Your task to perform on an android device: empty trash in the gmail app Image 0: 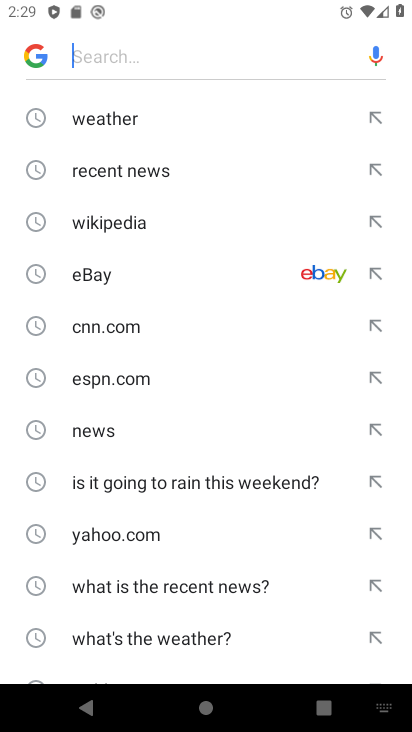
Step 0: press home button
Your task to perform on an android device: empty trash in the gmail app Image 1: 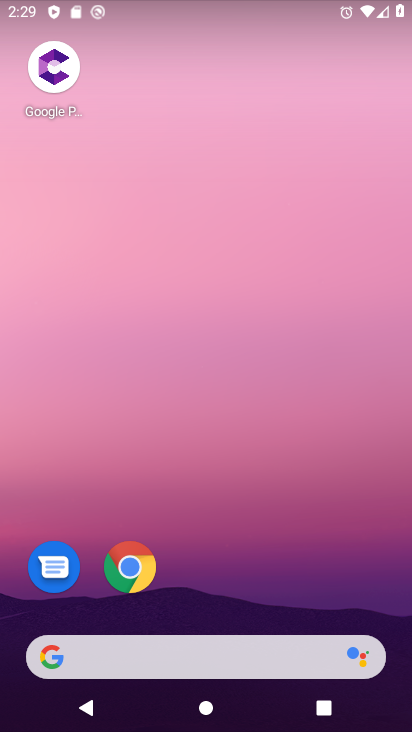
Step 1: drag from (220, 598) to (258, 66)
Your task to perform on an android device: empty trash in the gmail app Image 2: 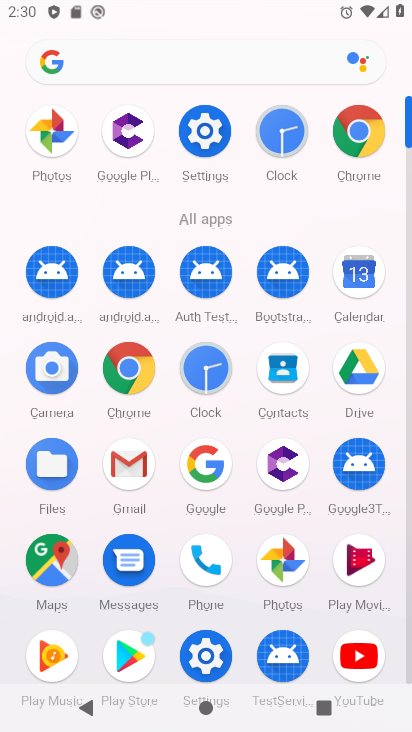
Step 2: click (139, 469)
Your task to perform on an android device: empty trash in the gmail app Image 3: 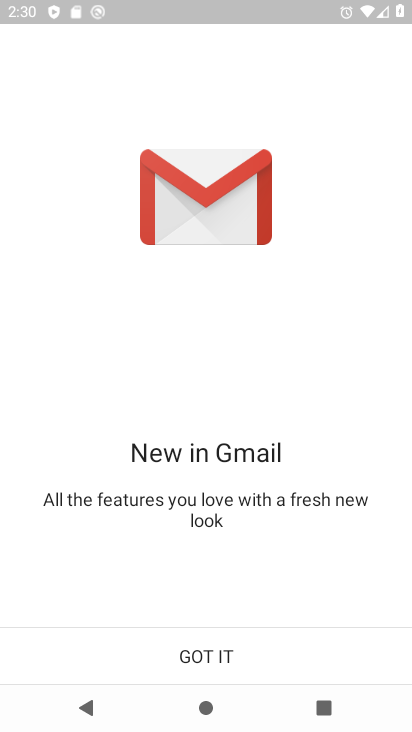
Step 3: click (217, 654)
Your task to perform on an android device: empty trash in the gmail app Image 4: 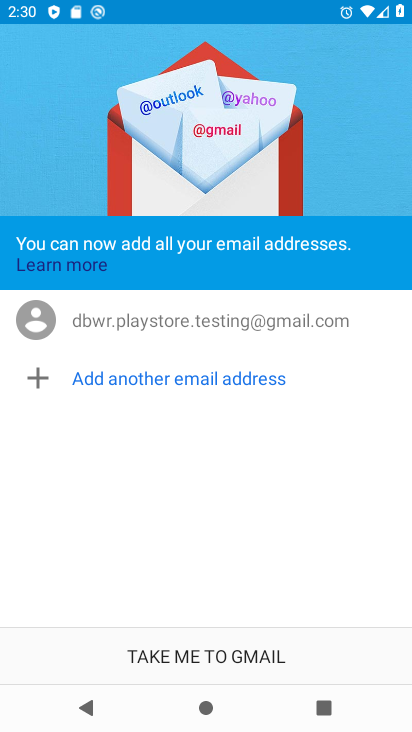
Step 4: click (218, 655)
Your task to perform on an android device: empty trash in the gmail app Image 5: 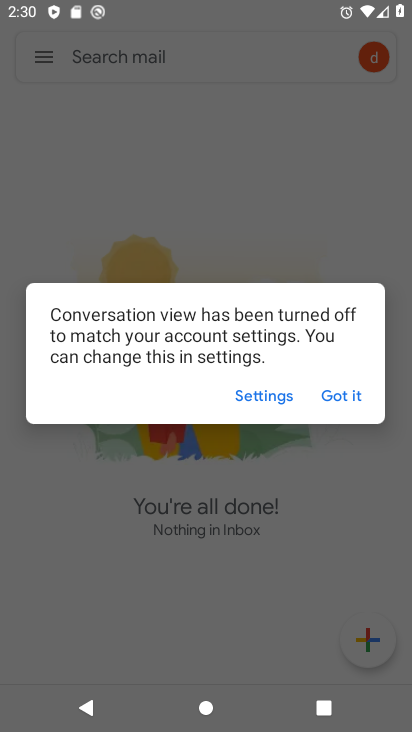
Step 5: click (340, 398)
Your task to perform on an android device: empty trash in the gmail app Image 6: 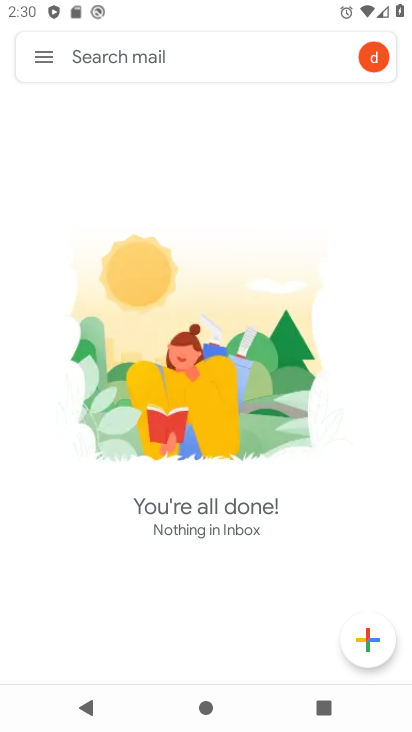
Step 6: click (35, 61)
Your task to perform on an android device: empty trash in the gmail app Image 7: 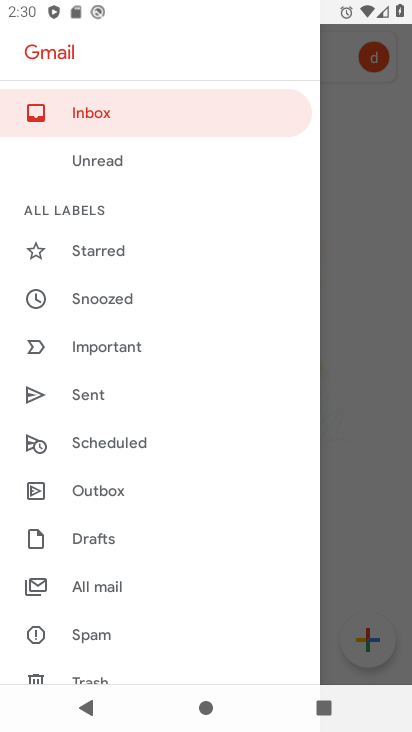
Step 7: drag from (112, 592) to (156, 287)
Your task to perform on an android device: empty trash in the gmail app Image 8: 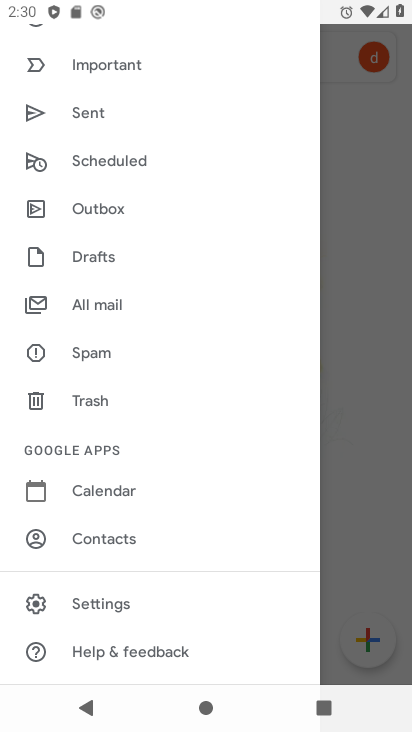
Step 8: click (109, 406)
Your task to perform on an android device: empty trash in the gmail app Image 9: 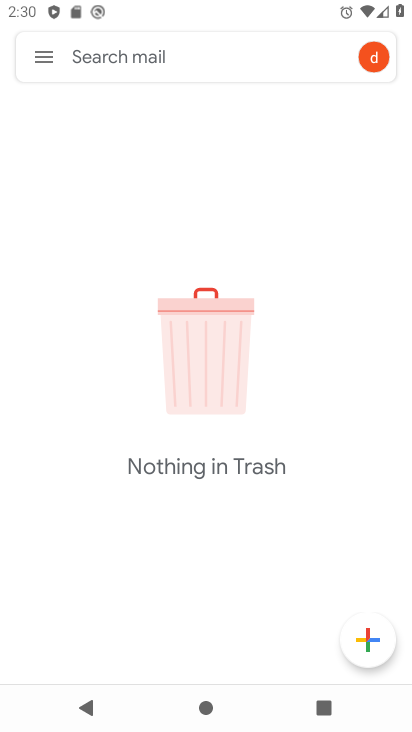
Step 9: task complete